Your task to perform on an android device: Open Chrome and go to settings Image 0: 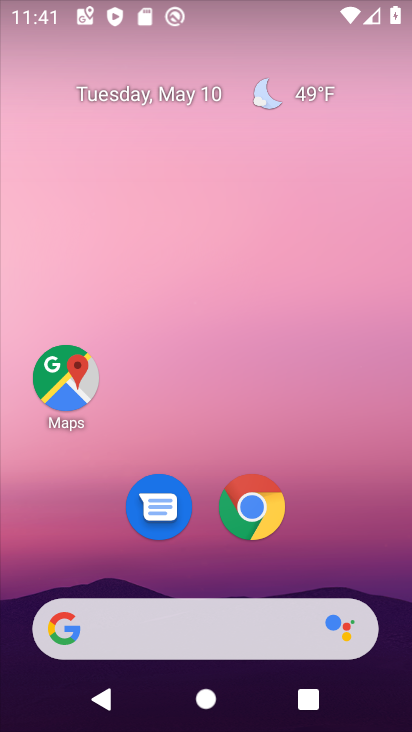
Step 0: click (256, 514)
Your task to perform on an android device: Open Chrome and go to settings Image 1: 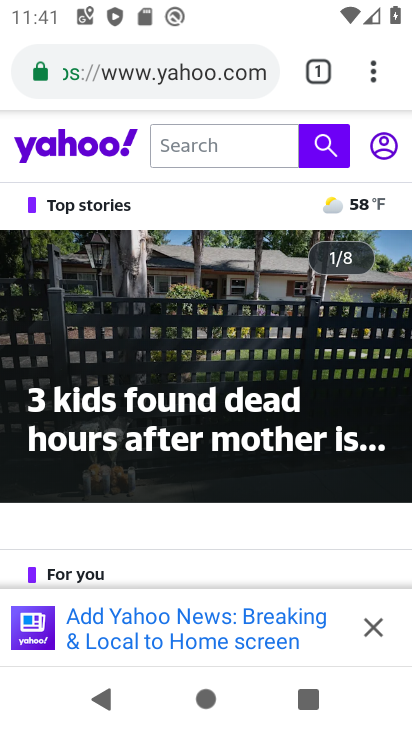
Step 1: click (362, 66)
Your task to perform on an android device: Open Chrome and go to settings Image 2: 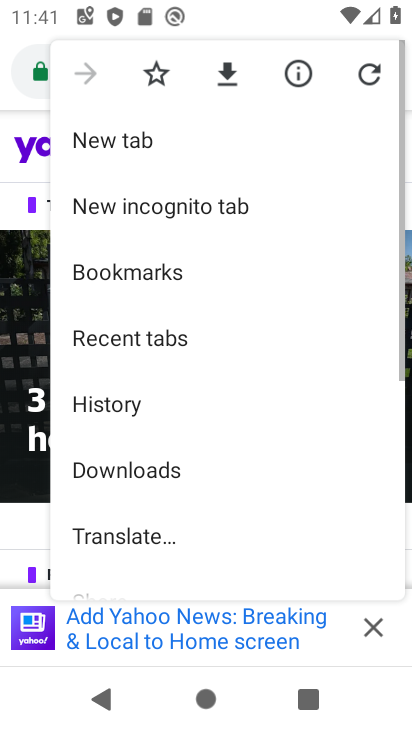
Step 2: drag from (152, 491) to (167, 136)
Your task to perform on an android device: Open Chrome and go to settings Image 3: 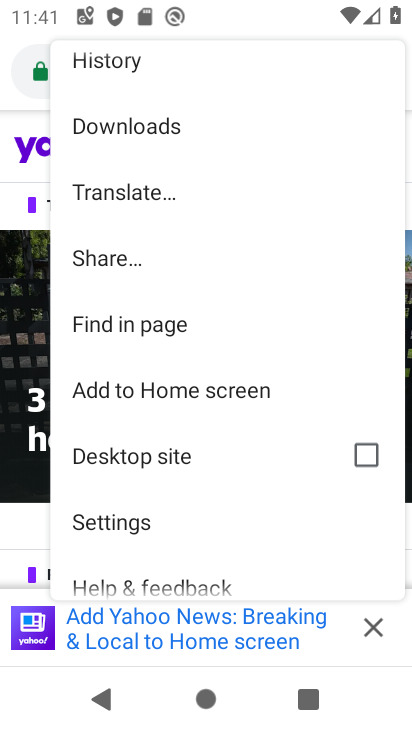
Step 3: click (122, 507)
Your task to perform on an android device: Open Chrome and go to settings Image 4: 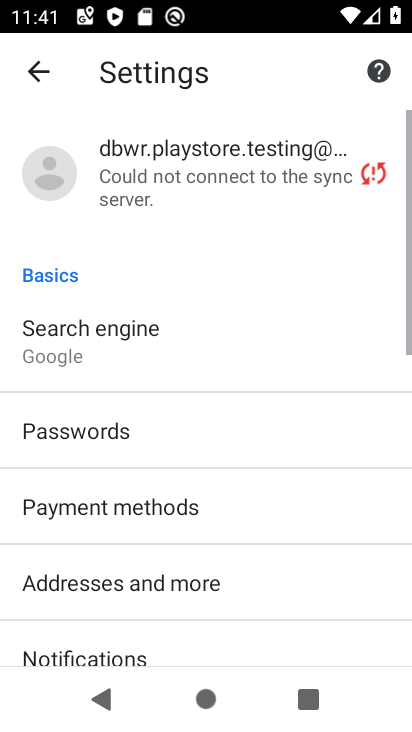
Step 4: task complete